Your task to perform on an android device: Go to Yahoo.com Image 0: 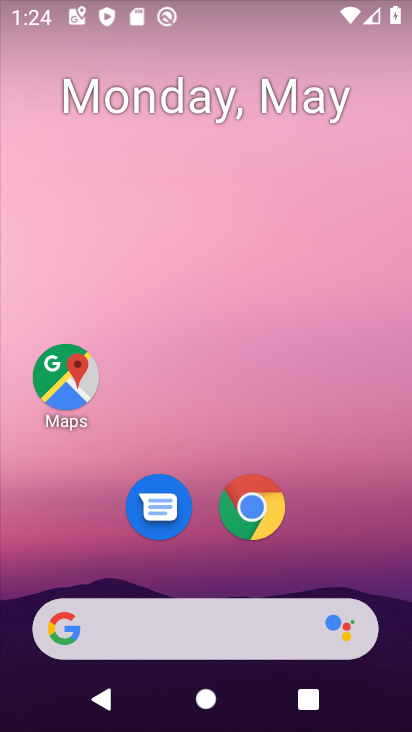
Step 0: click (253, 505)
Your task to perform on an android device: Go to Yahoo.com Image 1: 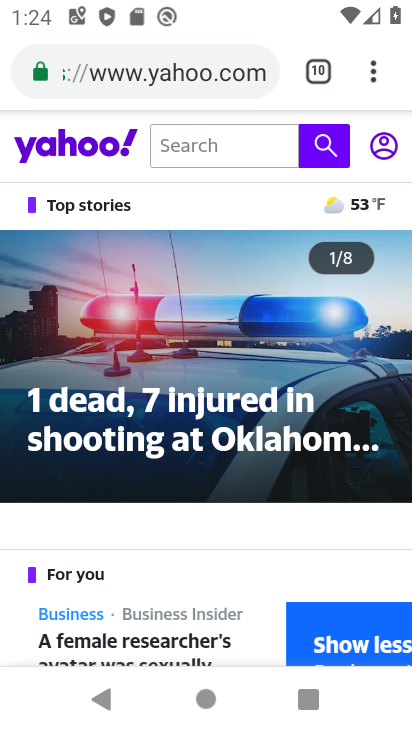
Step 1: task complete